Your task to perform on an android device: What's on my calendar tomorrow? Image 0: 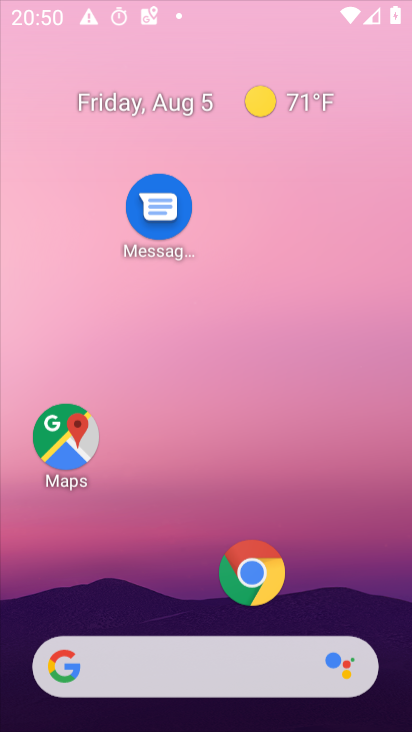
Step 0: press home button
Your task to perform on an android device: What's on my calendar tomorrow? Image 1: 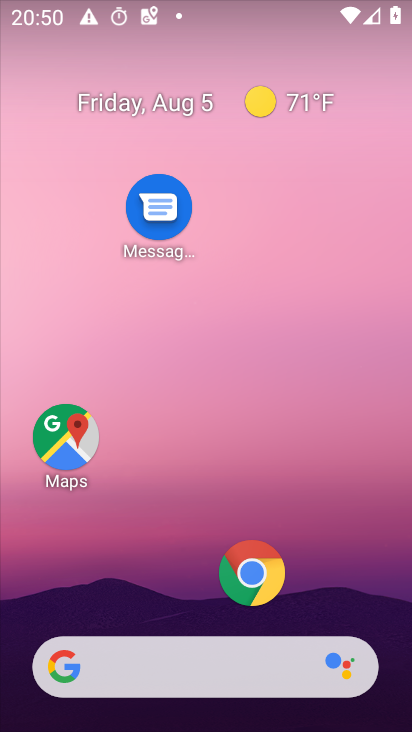
Step 1: drag from (199, 613) to (251, 41)
Your task to perform on an android device: What's on my calendar tomorrow? Image 2: 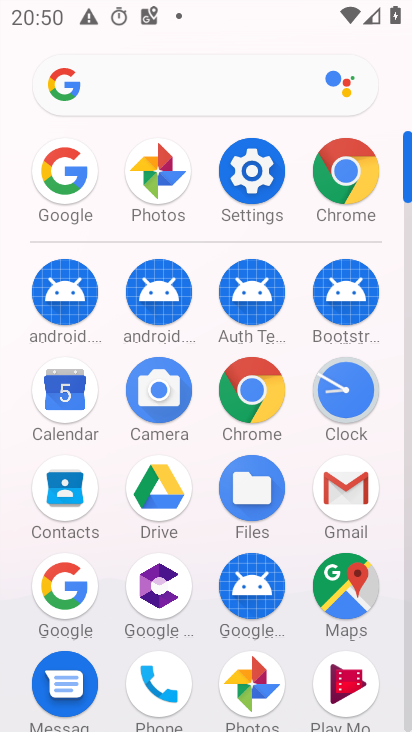
Step 2: click (60, 386)
Your task to perform on an android device: What's on my calendar tomorrow? Image 3: 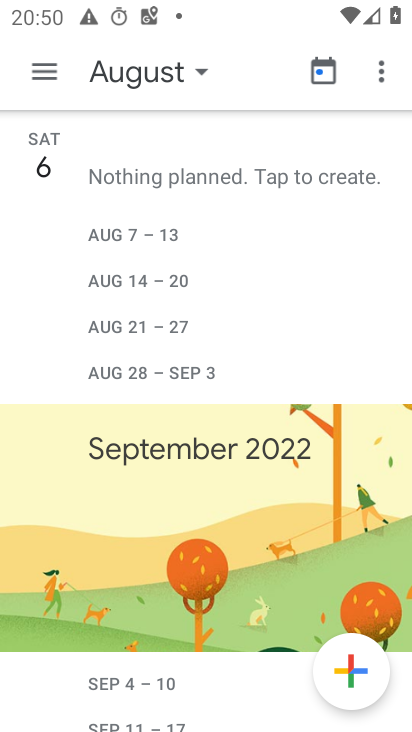
Step 3: click (36, 67)
Your task to perform on an android device: What's on my calendar tomorrow? Image 4: 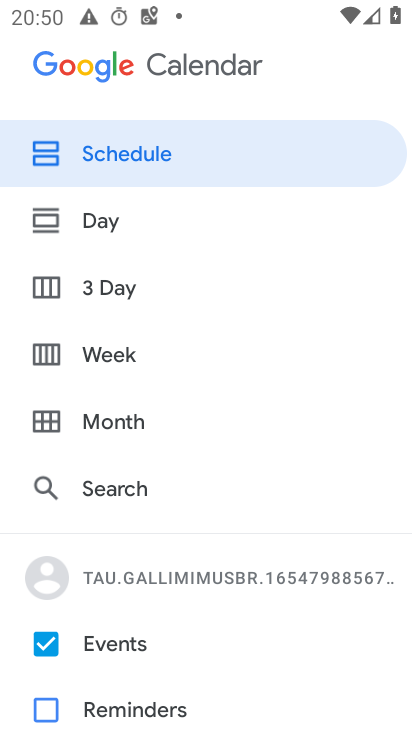
Step 4: click (74, 217)
Your task to perform on an android device: What's on my calendar tomorrow? Image 5: 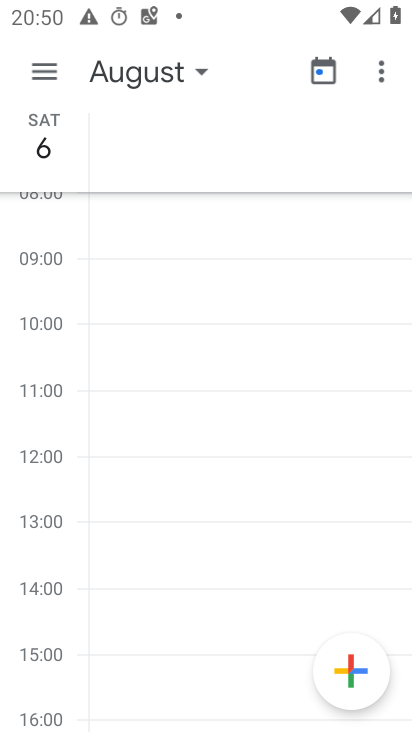
Step 5: click (64, 143)
Your task to perform on an android device: What's on my calendar tomorrow? Image 6: 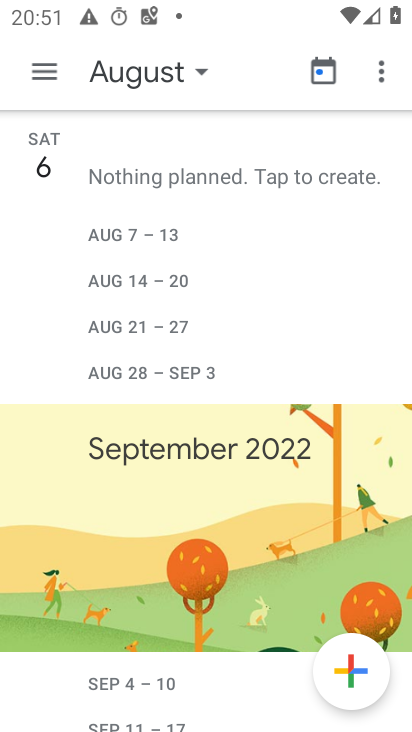
Step 6: click (191, 69)
Your task to perform on an android device: What's on my calendar tomorrow? Image 7: 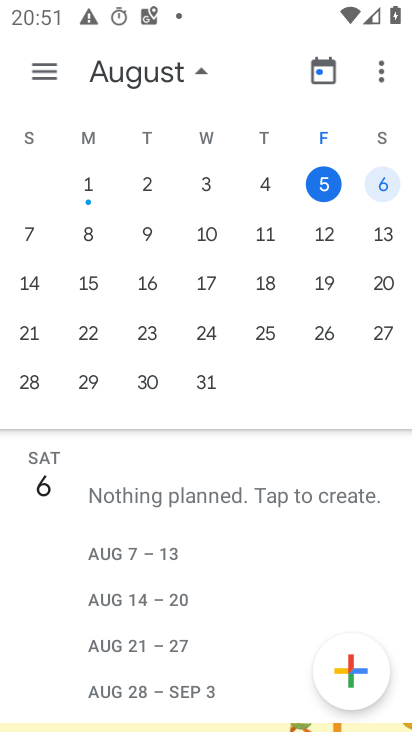
Step 7: click (378, 181)
Your task to perform on an android device: What's on my calendar tomorrow? Image 8: 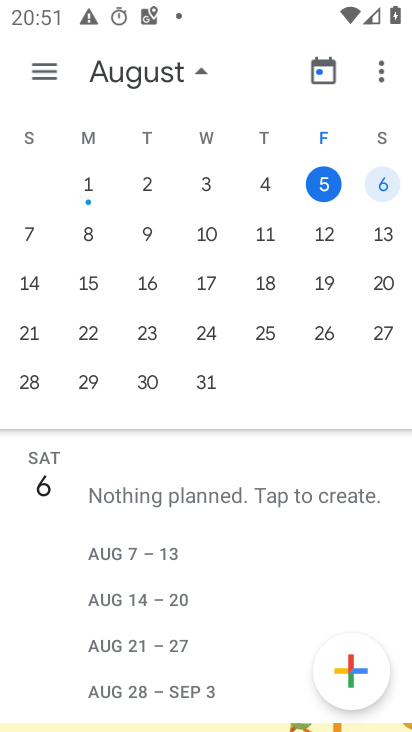
Step 8: click (194, 67)
Your task to perform on an android device: What's on my calendar tomorrow? Image 9: 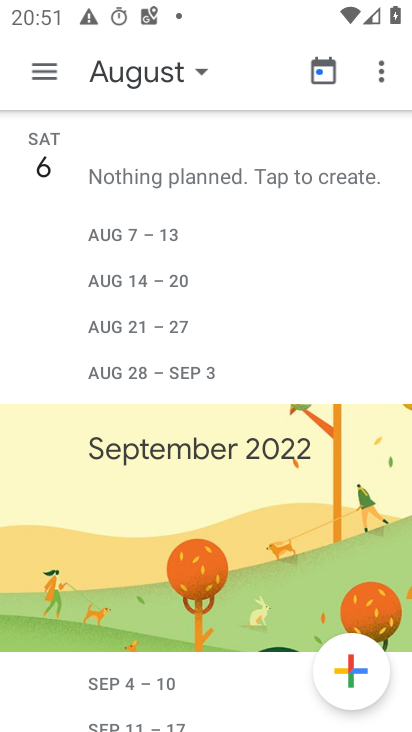
Step 9: click (55, 476)
Your task to perform on an android device: What's on my calendar tomorrow? Image 10: 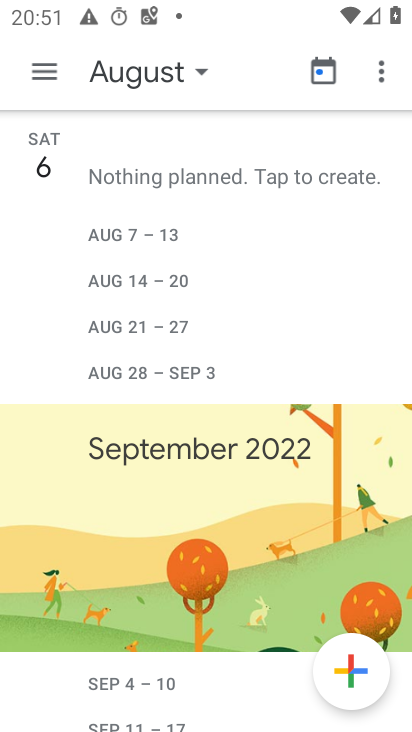
Step 10: click (48, 143)
Your task to perform on an android device: What's on my calendar tomorrow? Image 11: 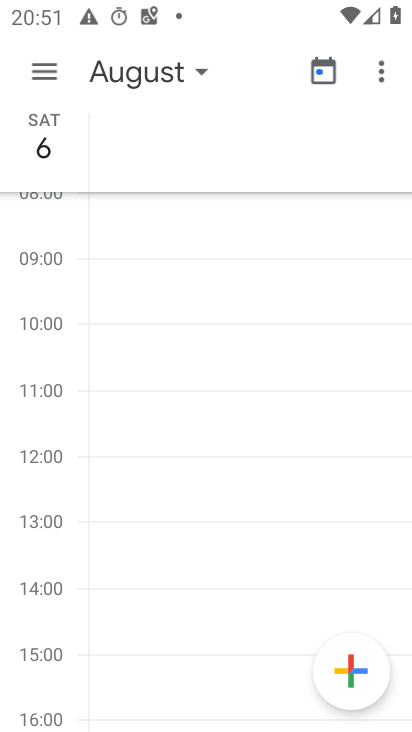
Step 11: task complete